Your task to perform on an android device: Open calendar and show me the third week of next month Image 0: 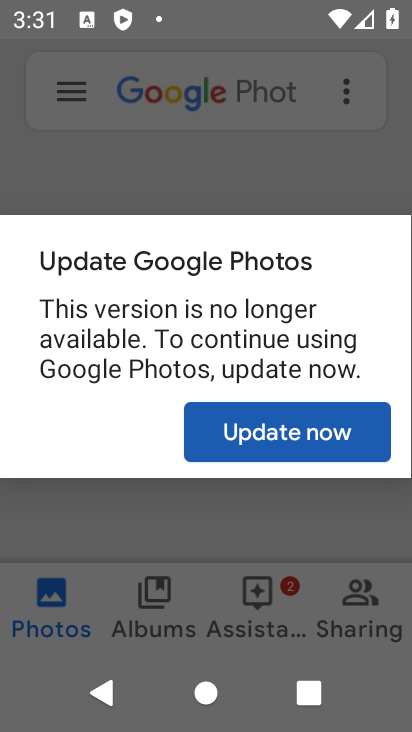
Step 0: press home button
Your task to perform on an android device: Open calendar and show me the third week of next month Image 1: 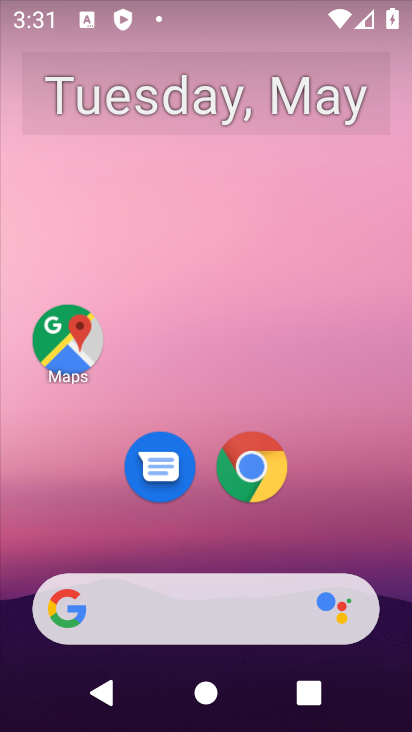
Step 1: task complete